Your task to perform on an android device: Go to notification settings Image 0: 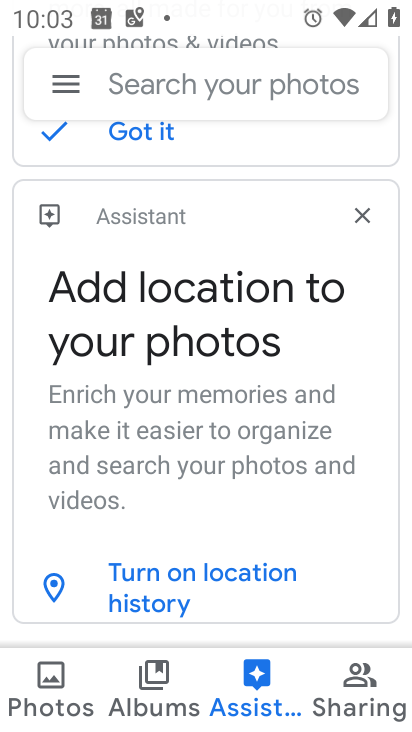
Step 0: press back button
Your task to perform on an android device: Go to notification settings Image 1: 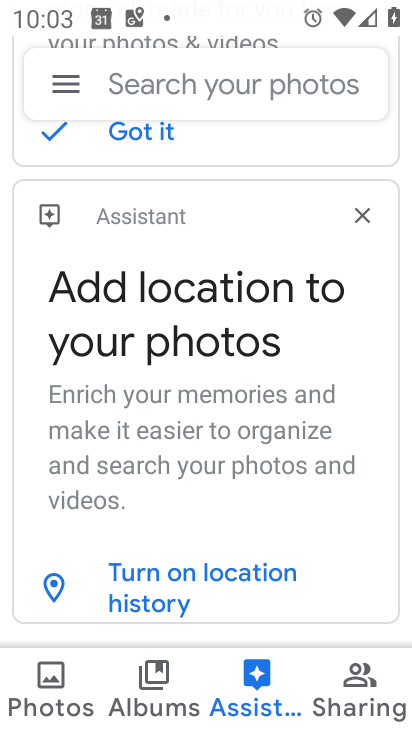
Step 1: press back button
Your task to perform on an android device: Go to notification settings Image 2: 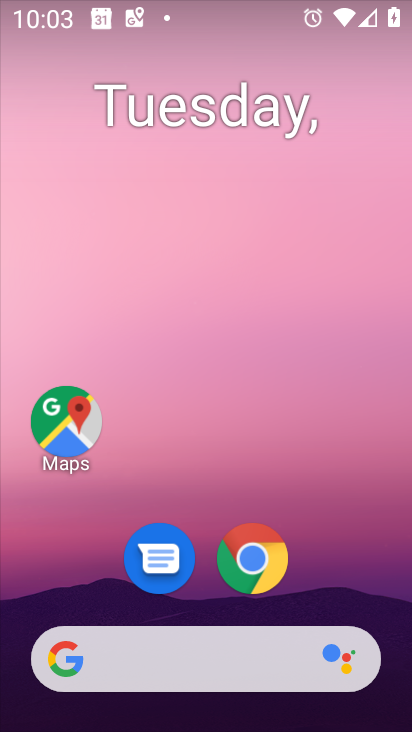
Step 2: drag from (325, 601) to (148, 52)
Your task to perform on an android device: Go to notification settings Image 3: 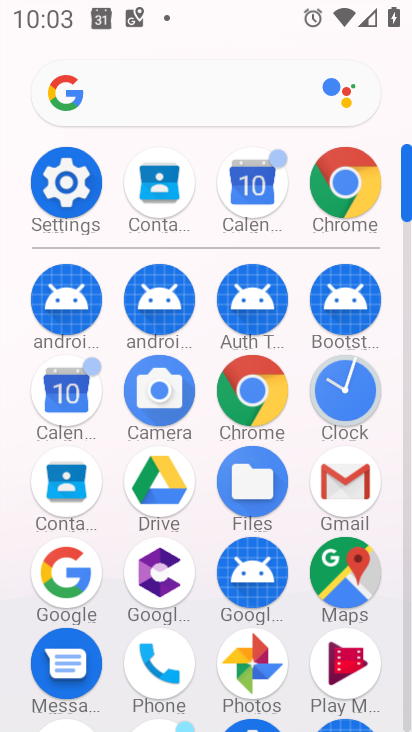
Step 3: click (55, 198)
Your task to perform on an android device: Go to notification settings Image 4: 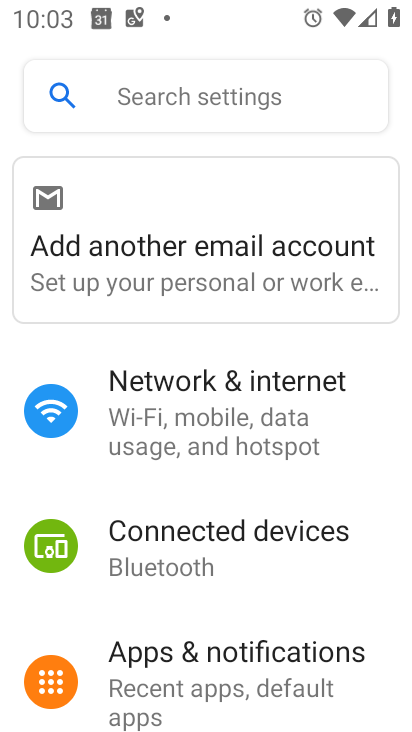
Step 4: click (221, 690)
Your task to perform on an android device: Go to notification settings Image 5: 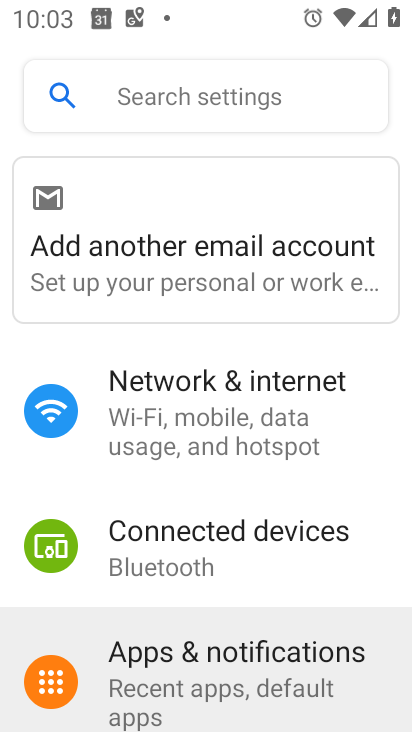
Step 5: click (222, 683)
Your task to perform on an android device: Go to notification settings Image 6: 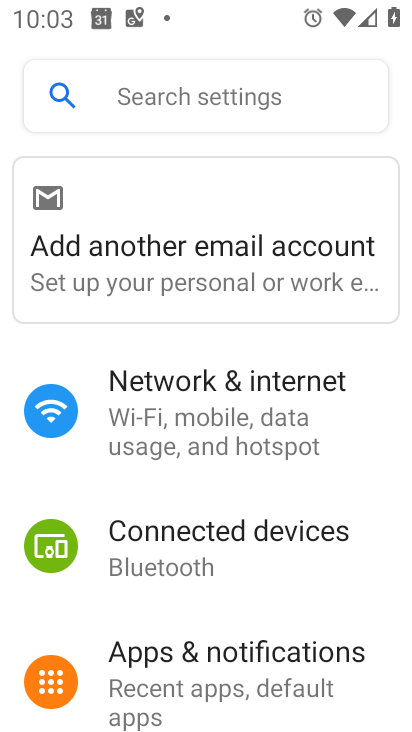
Step 6: click (234, 679)
Your task to perform on an android device: Go to notification settings Image 7: 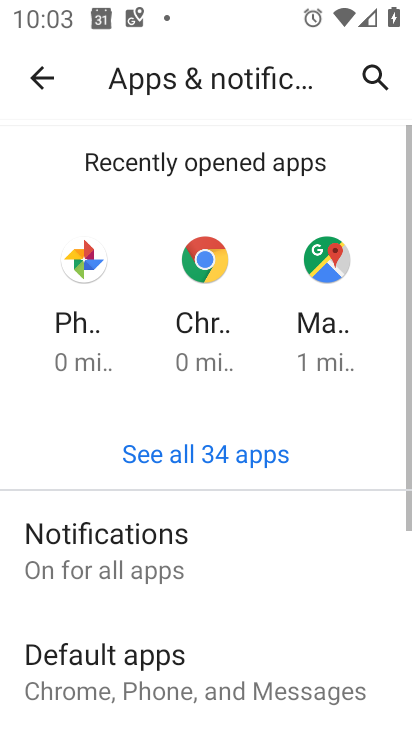
Step 7: click (111, 557)
Your task to perform on an android device: Go to notification settings Image 8: 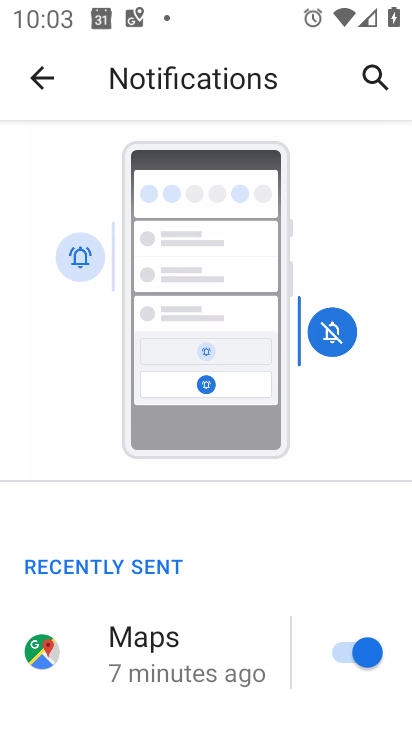
Step 8: drag from (209, 641) to (265, 71)
Your task to perform on an android device: Go to notification settings Image 9: 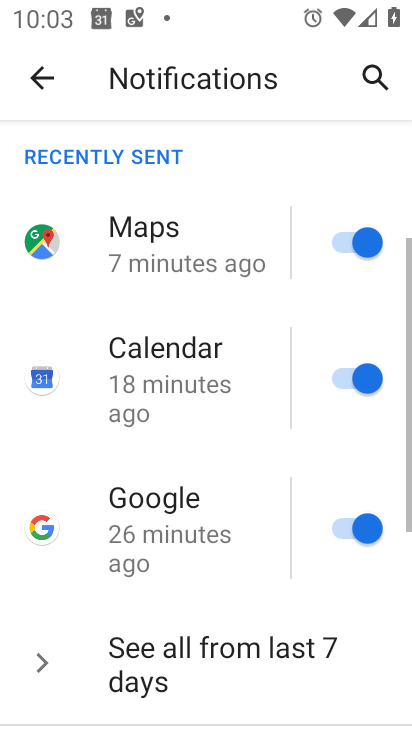
Step 9: drag from (263, 555) to (221, 165)
Your task to perform on an android device: Go to notification settings Image 10: 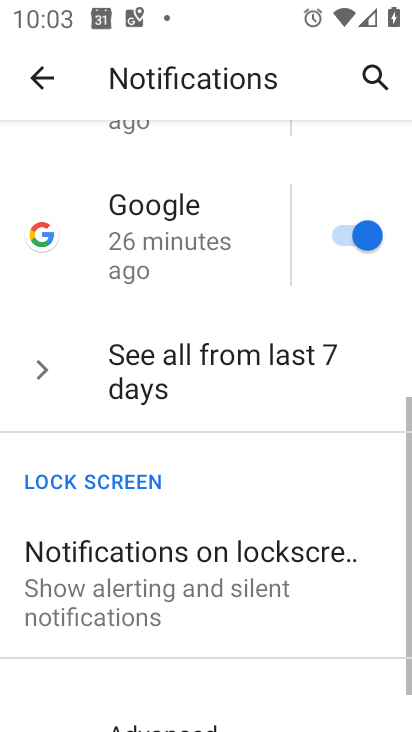
Step 10: drag from (205, 606) to (208, 261)
Your task to perform on an android device: Go to notification settings Image 11: 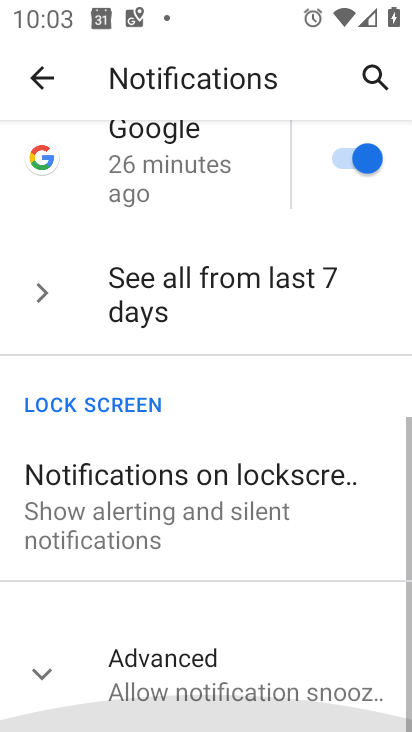
Step 11: drag from (199, 567) to (202, 66)
Your task to perform on an android device: Go to notification settings Image 12: 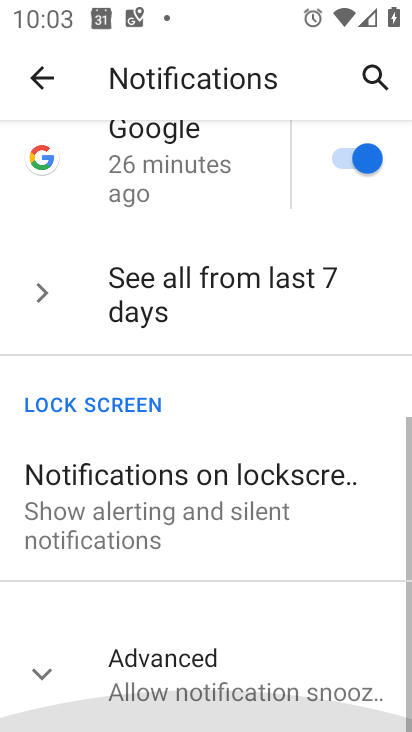
Step 12: drag from (256, 529) to (254, 116)
Your task to perform on an android device: Go to notification settings Image 13: 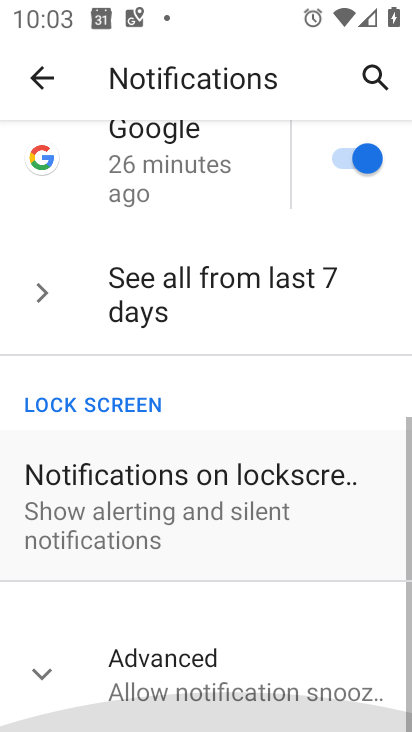
Step 13: drag from (281, 531) to (280, 176)
Your task to perform on an android device: Go to notification settings Image 14: 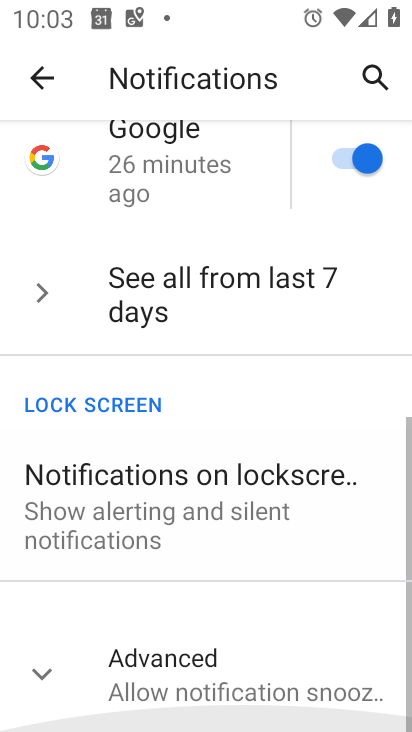
Step 14: drag from (272, 546) to (289, 121)
Your task to perform on an android device: Go to notification settings Image 15: 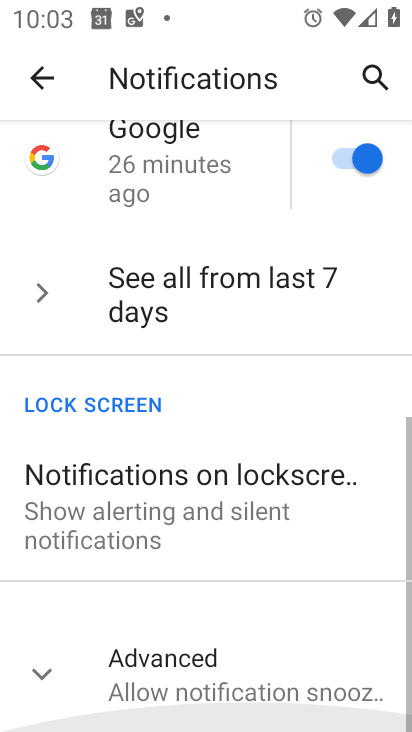
Step 15: drag from (265, 479) to (304, 152)
Your task to perform on an android device: Go to notification settings Image 16: 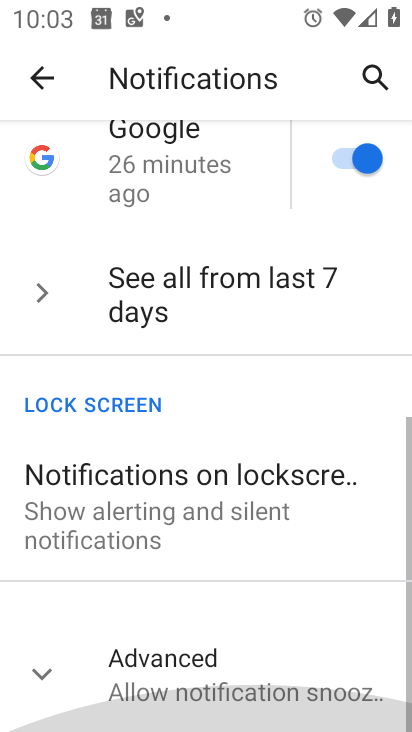
Step 16: click (87, 66)
Your task to perform on an android device: Go to notification settings Image 17: 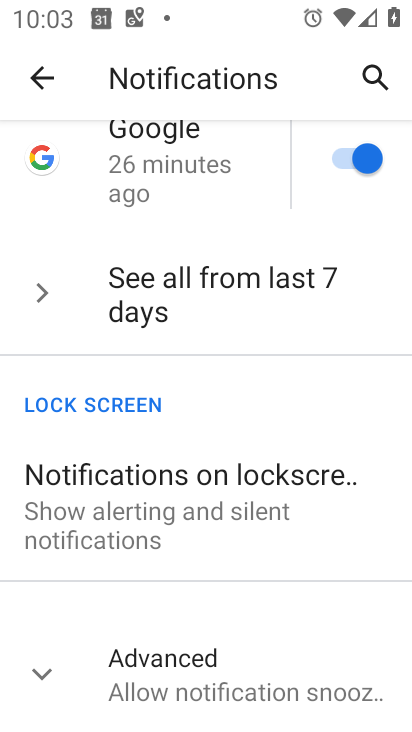
Step 17: task complete